Your task to perform on an android device: turn smart compose on in the gmail app Image 0: 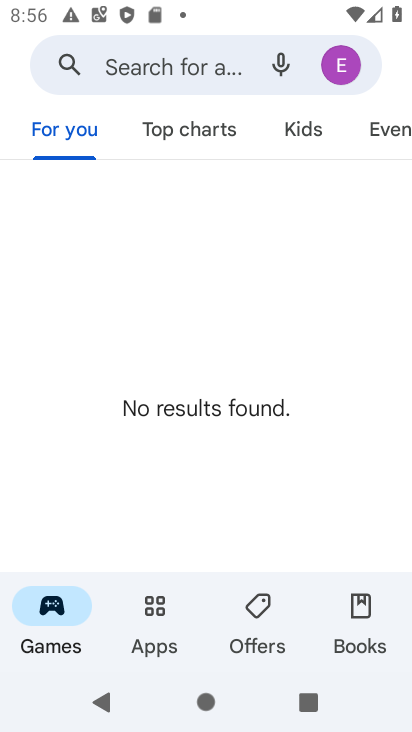
Step 0: press home button
Your task to perform on an android device: turn smart compose on in the gmail app Image 1: 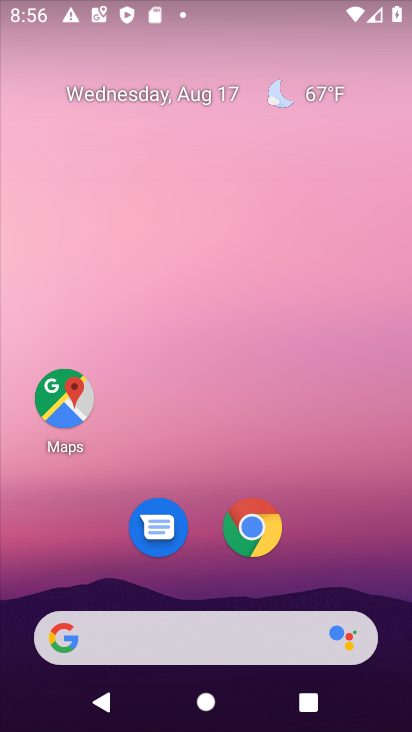
Step 1: drag from (193, 593) to (172, 86)
Your task to perform on an android device: turn smart compose on in the gmail app Image 2: 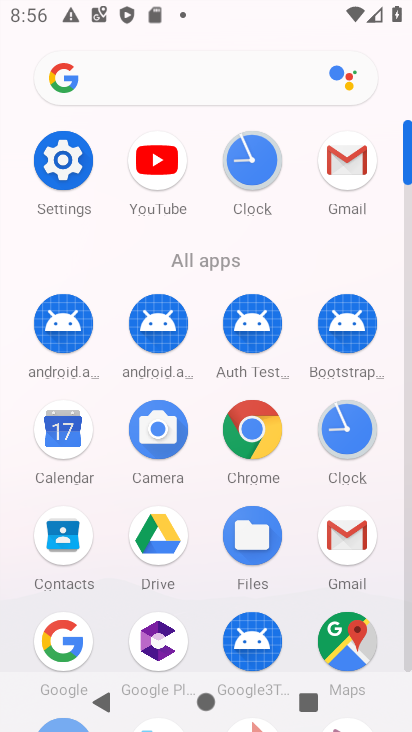
Step 2: click (354, 546)
Your task to perform on an android device: turn smart compose on in the gmail app Image 3: 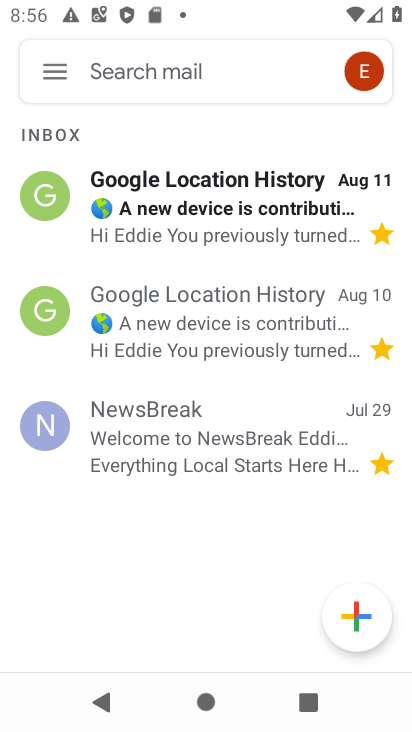
Step 3: click (61, 71)
Your task to perform on an android device: turn smart compose on in the gmail app Image 4: 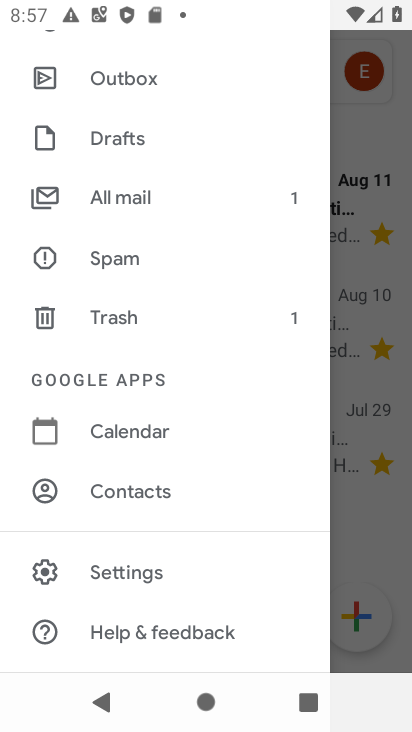
Step 4: click (107, 573)
Your task to perform on an android device: turn smart compose on in the gmail app Image 5: 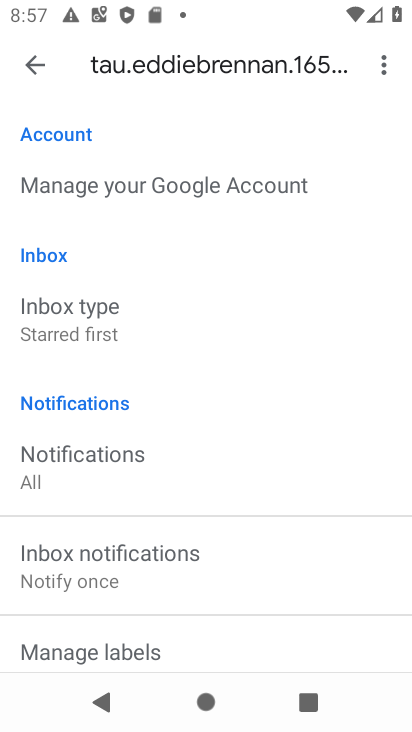
Step 5: task complete